Your task to perform on an android device: change your default location settings in chrome Image 0: 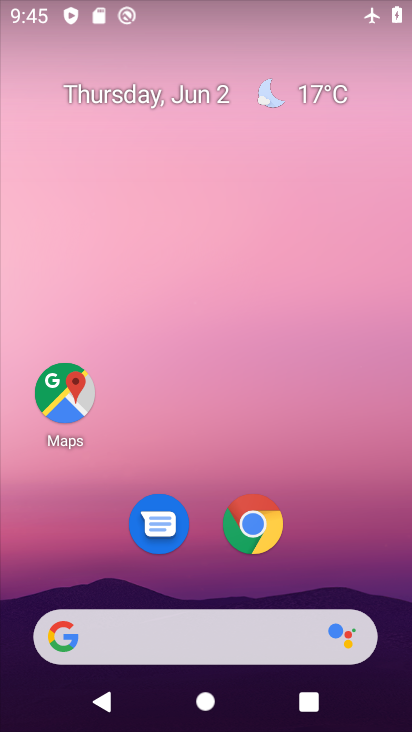
Step 0: click (252, 516)
Your task to perform on an android device: change your default location settings in chrome Image 1: 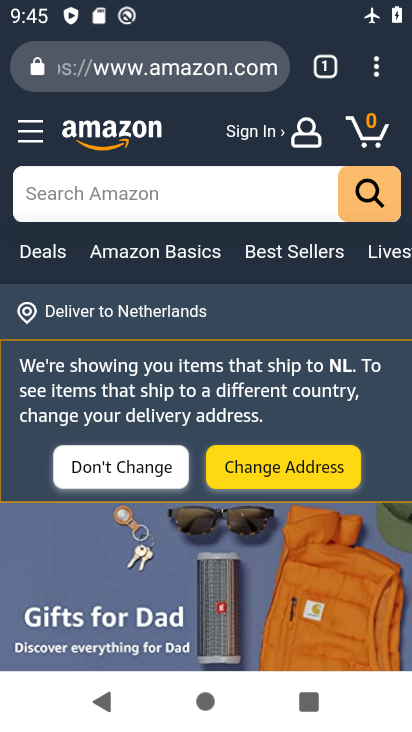
Step 1: click (379, 75)
Your task to perform on an android device: change your default location settings in chrome Image 2: 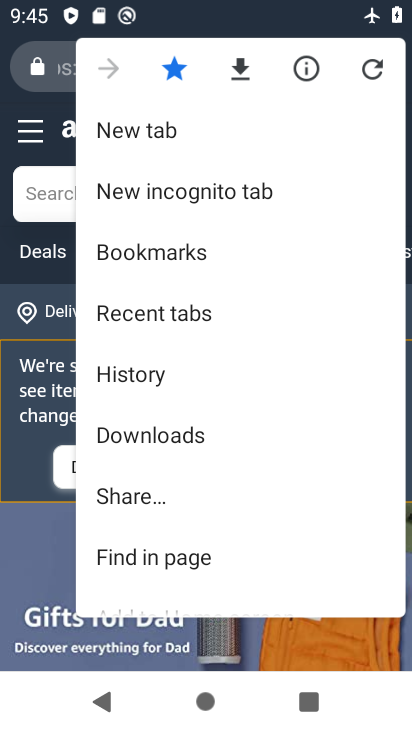
Step 2: drag from (256, 491) to (221, 121)
Your task to perform on an android device: change your default location settings in chrome Image 3: 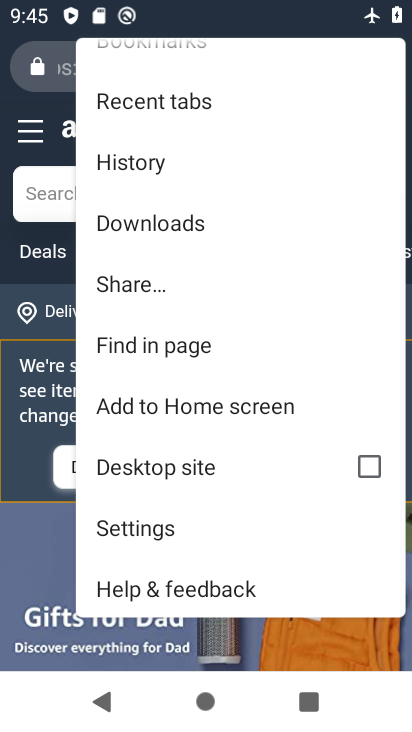
Step 3: click (180, 522)
Your task to perform on an android device: change your default location settings in chrome Image 4: 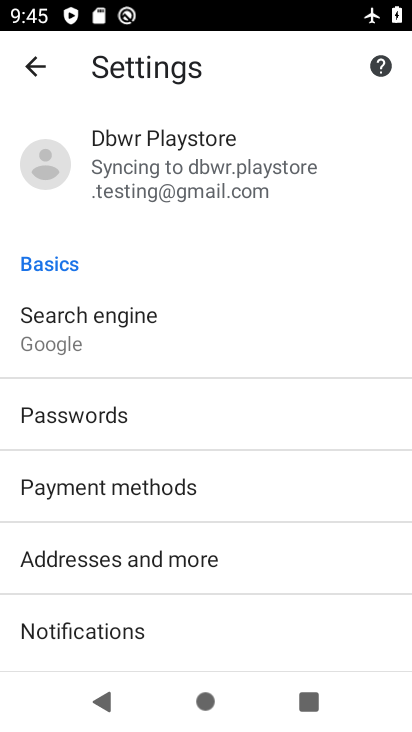
Step 4: drag from (251, 445) to (246, 139)
Your task to perform on an android device: change your default location settings in chrome Image 5: 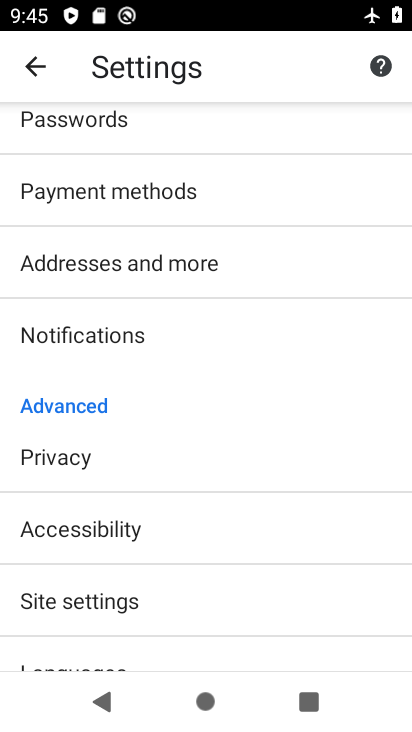
Step 5: click (230, 597)
Your task to perform on an android device: change your default location settings in chrome Image 6: 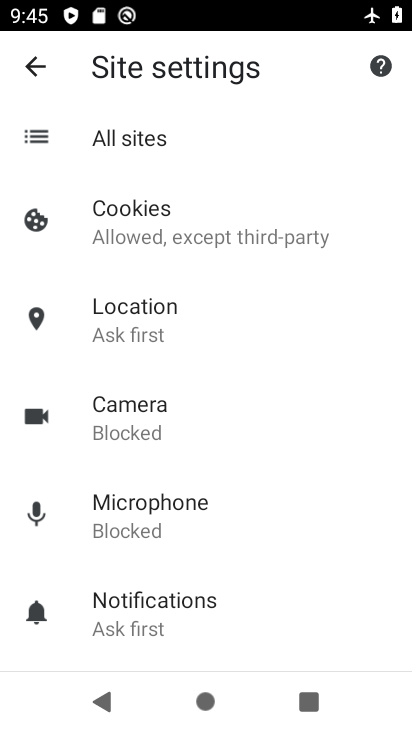
Step 6: click (203, 322)
Your task to perform on an android device: change your default location settings in chrome Image 7: 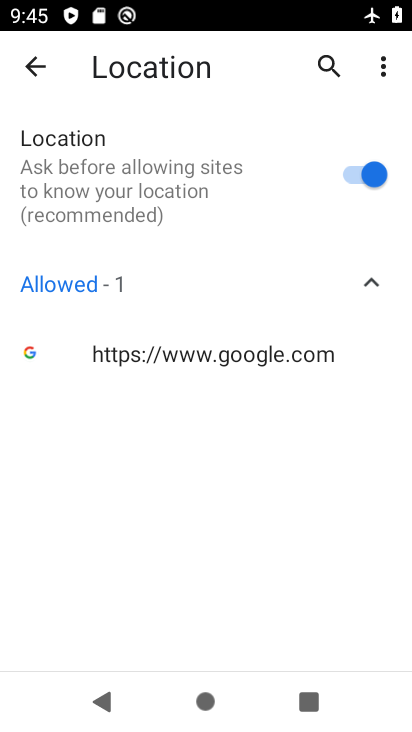
Step 7: click (362, 174)
Your task to perform on an android device: change your default location settings in chrome Image 8: 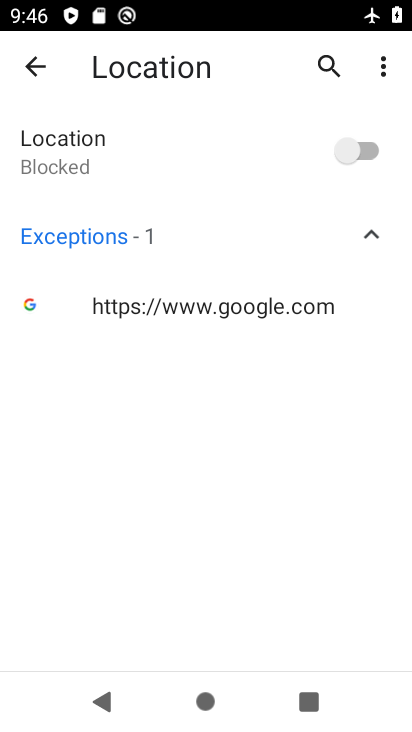
Step 8: task complete